Your task to perform on an android device: add a contact Image 0: 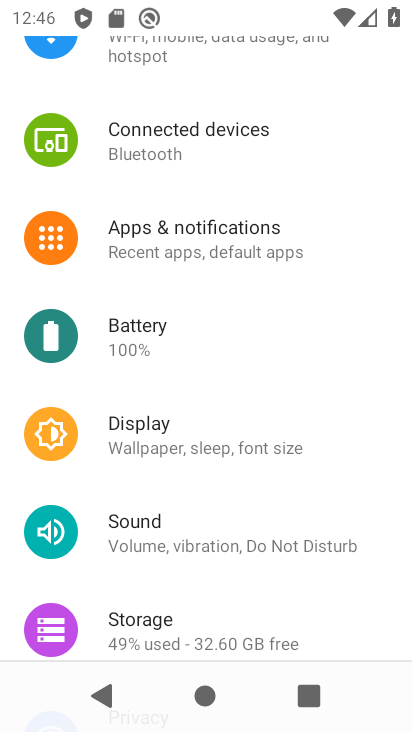
Step 0: press home button
Your task to perform on an android device: add a contact Image 1: 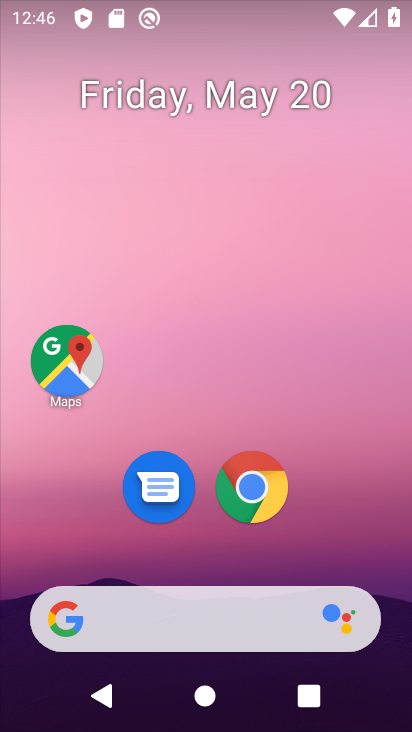
Step 1: drag from (328, 535) to (309, 119)
Your task to perform on an android device: add a contact Image 2: 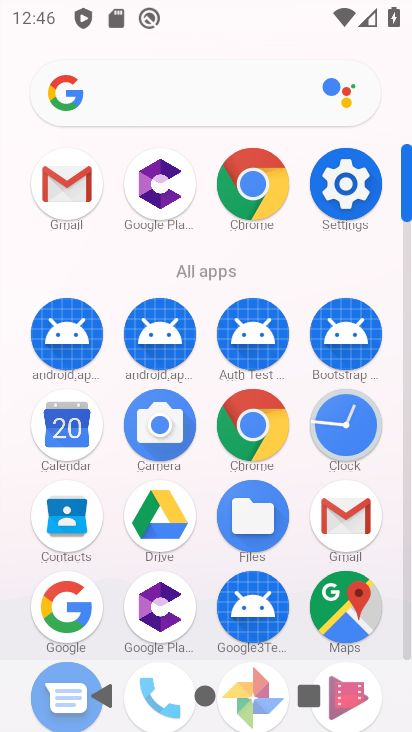
Step 2: drag from (287, 571) to (312, 315)
Your task to perform on an android device: add a contact Image 3: 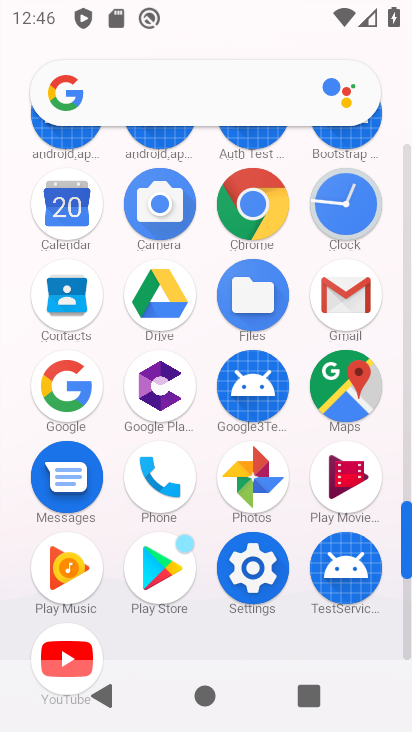
Step 3: click (88, 292)
Your task to perform on an android device: add a contact Image 4: 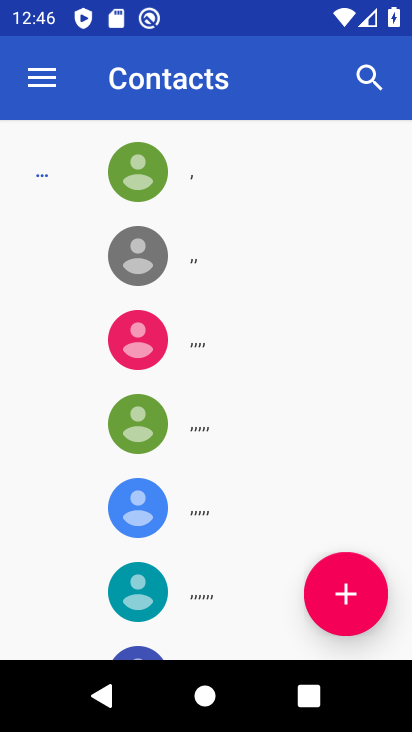
Step 4: click (337, 603)
Your task to perform on an android device: add a contact Image 5: 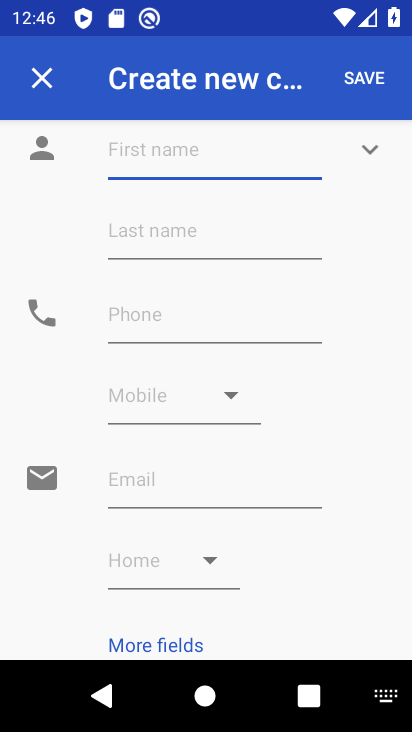
Step 5: click (228, 169)
Your task to perform on an android device: add a contact Image 6: 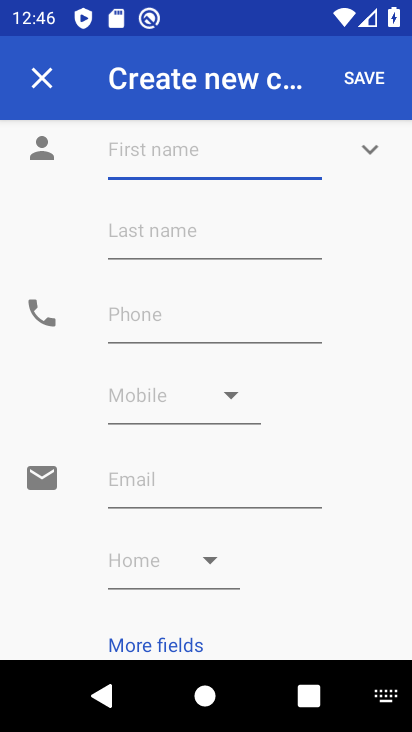
Step 6: type "saskutni"
Your task to perform on an android device: add a contact Image 7: 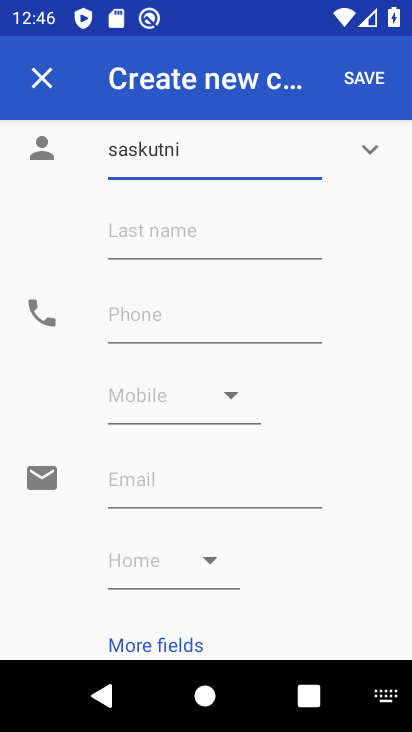
Step 7: click (370, 77)
Your task to perform on an android device: add a contact Image 8: 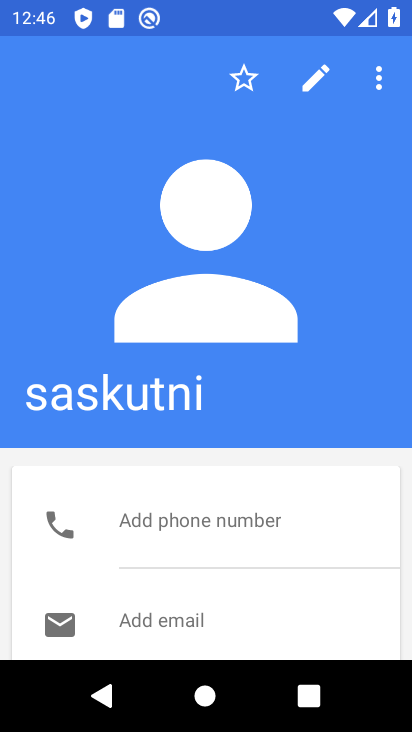
Step 8: task complete